Your task to perform on an android device: change the clock style Image 0: 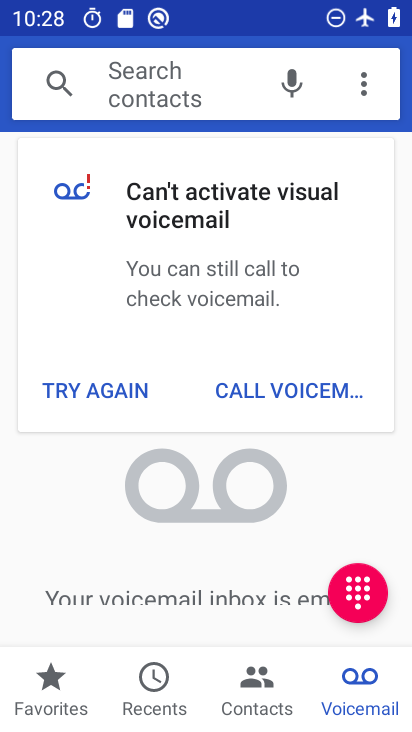
Step 0: press home button
Your task to perform on an android device: change the clock style Image 1: 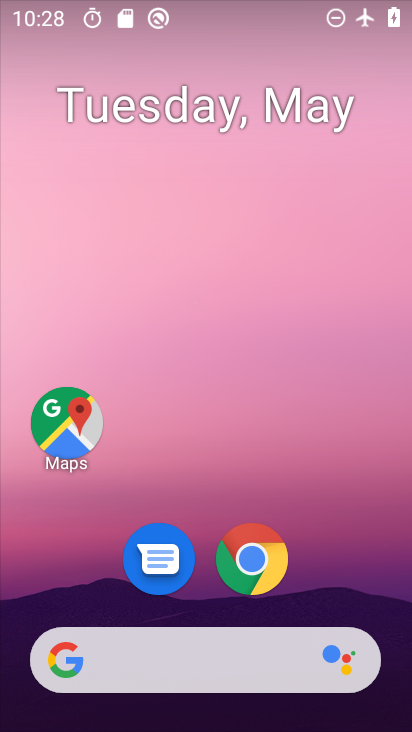
Step 1: drag from (352, 605) to (270, 7)
Your task to perform on an android device: change the clock style Image 2: 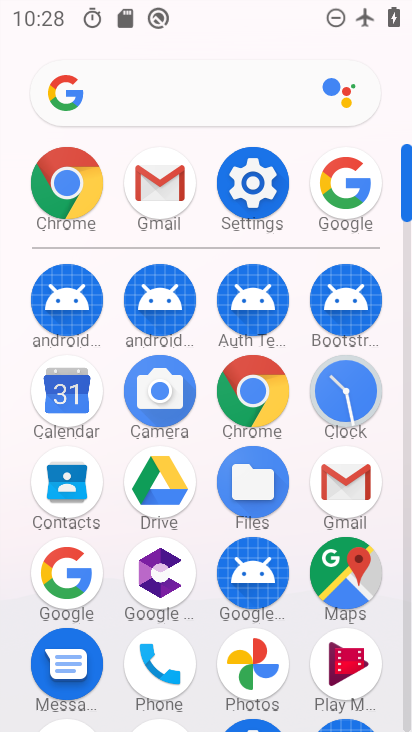
Step 2: click (350, 377)
Your task to perform on an android device: change the clock style Image 3: 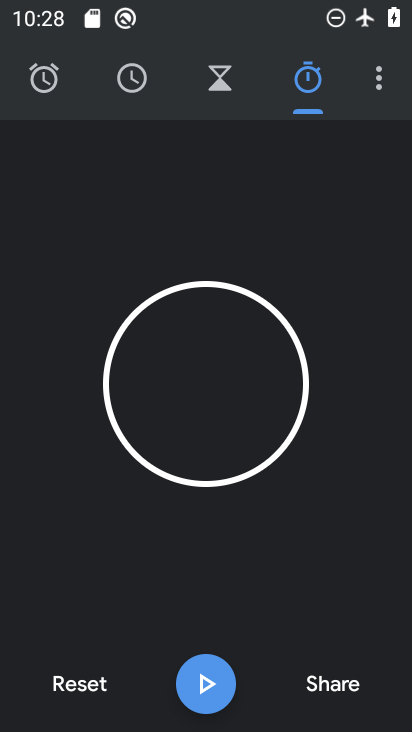
Step 3: click (382, 77)
Your task to perform on an android device: change the clock style Image 4: 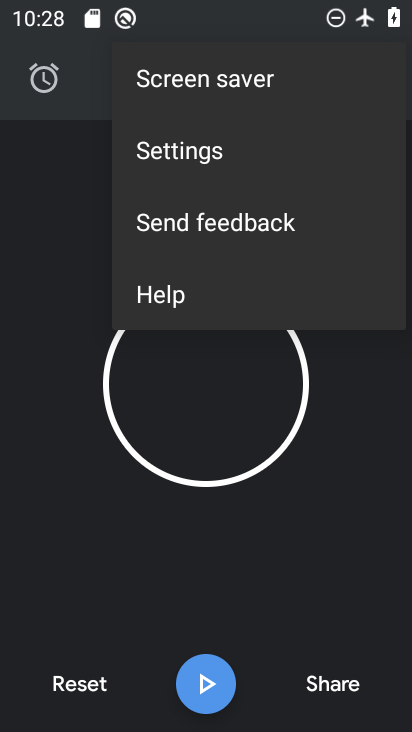
Step 4: click (237, 155)
Your task to perform on an android device: change the clock style Image 5: 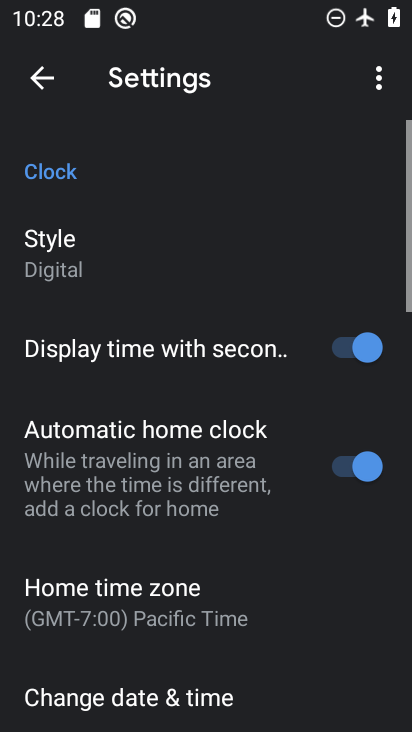
Step 5: click (136, 257)
Your task to perform on an android device: change the clock style Image 6: 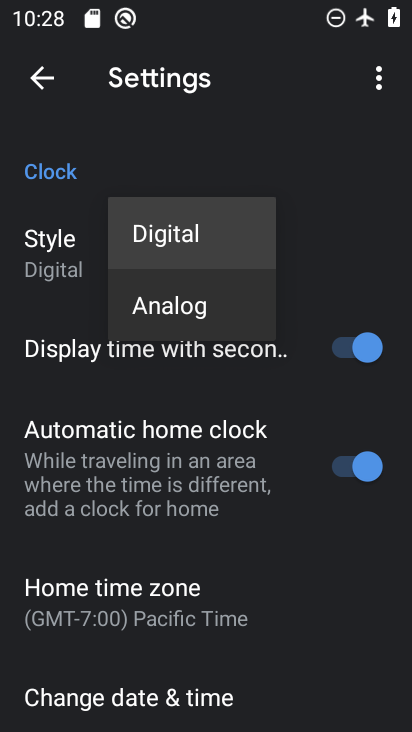
Step 6: click (194, 307)
Your task to perform on an android device: change the clock style Image 7: 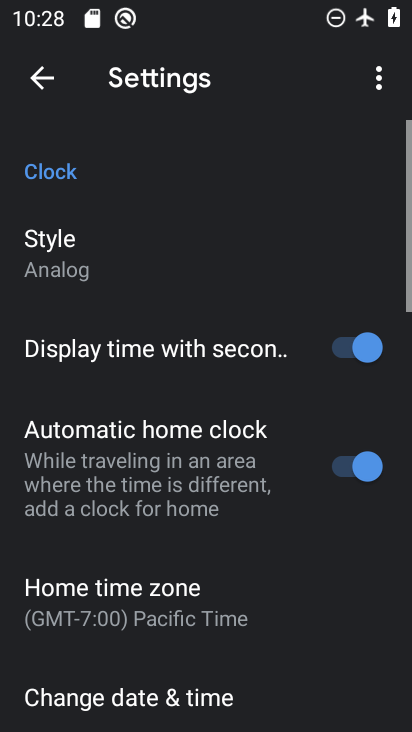
Step 7: task complete